Your task to perform on an android device: move a message to another label in the gmail app Image 0: 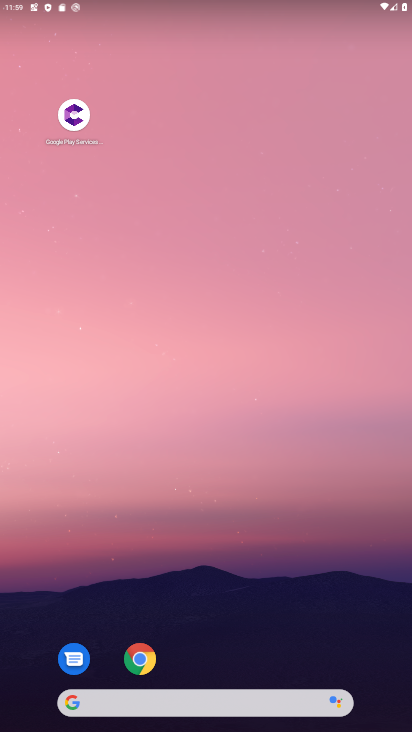
Step 0: drag from (191, 662) to (203, 290)
Your task to perform on an android device: move a message to another label in the gmail app Image 1: 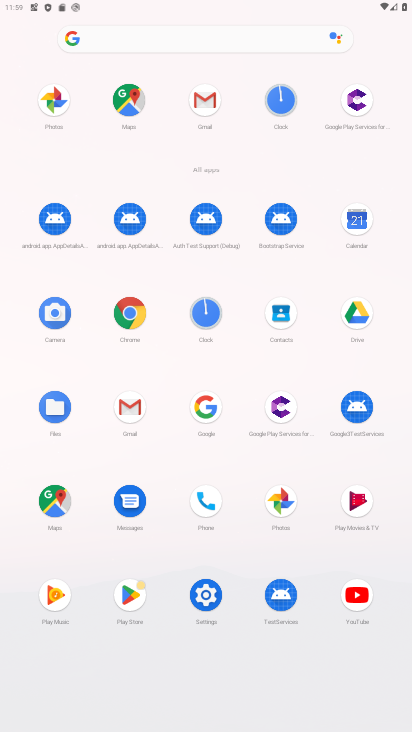
Step 1: click (196, 121)
Your task to perform on an android device: move a message to another label in the gmail app Image 2: 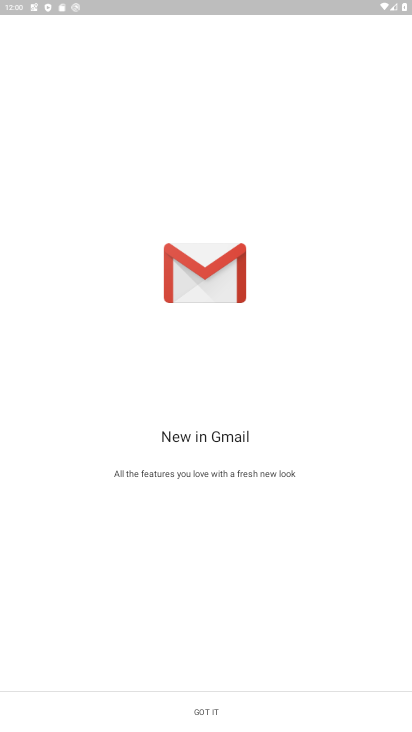
Step 2: click (217, 705)
Your task to perform on an android device: move a message to another label in the gmail app Image 3: 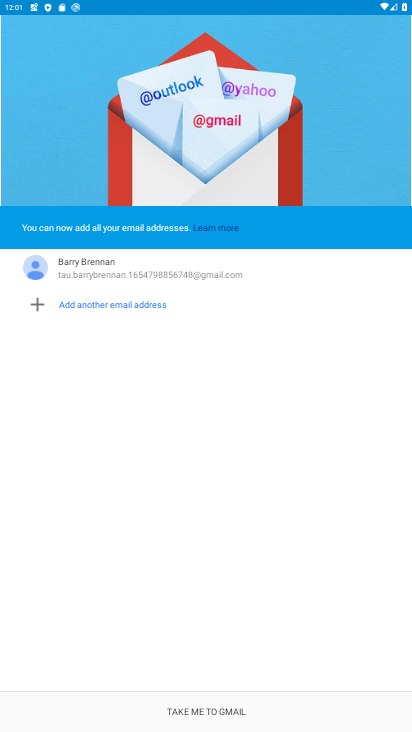
Step 3: click (187, 715)
Your task to perform on an android device: move a message to another label in the gmail app Image 4: 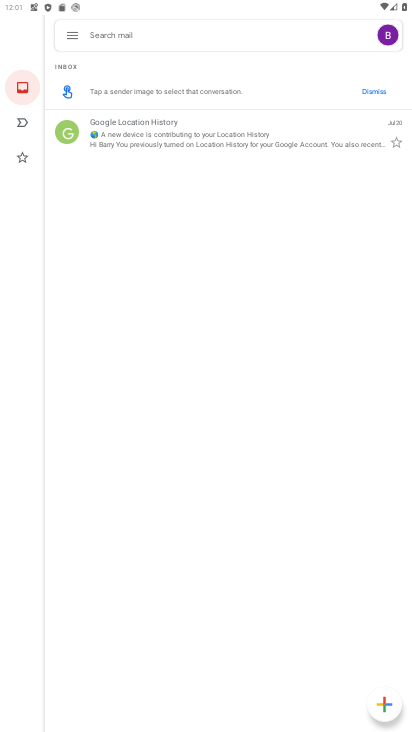
Step 4: click (223, 143)
Your task to perform on an android device: move a message to another label in the gmail app Image 5: 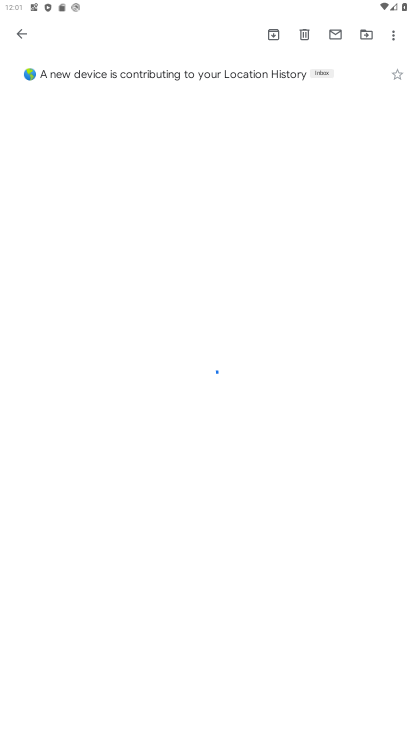
Step 5: click (396, 40)
Your task to perform on an android device: move a message to another label in the gmail app Image 6: 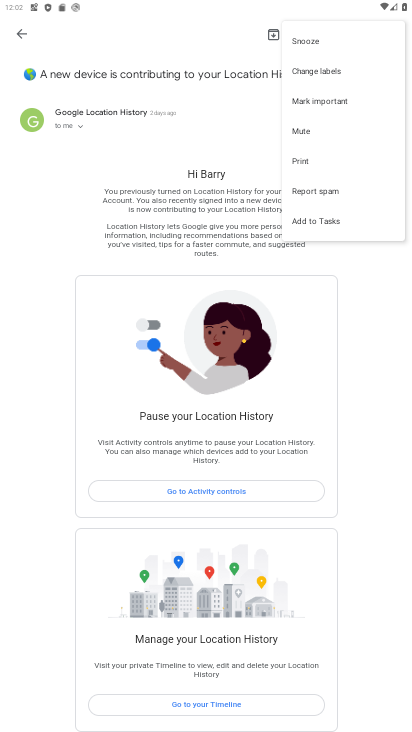
Step 6: click (149, 149)
Your task to perform on an android device: move a message to another label in the gmail app Image 7: 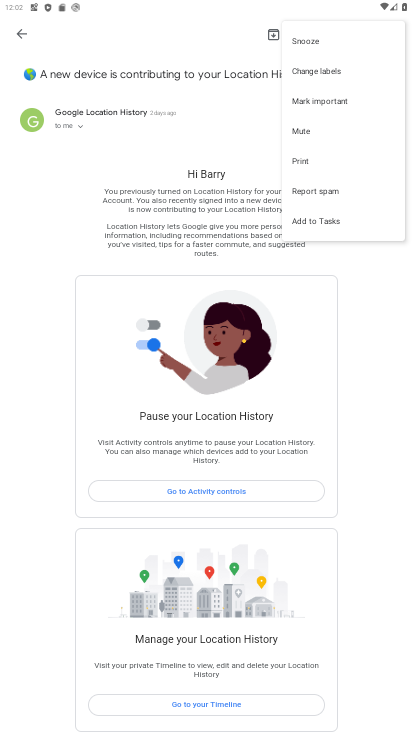
Step 7: click (149, 149)
Your task to perform on an android device: move a message to another label in the gmail app Image 8: 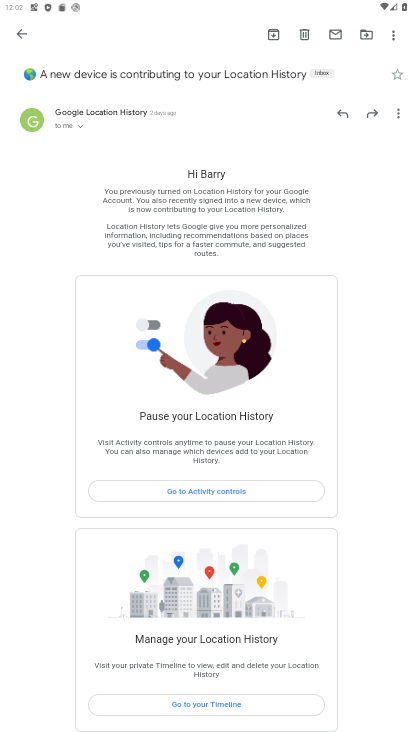
Step 8: task complete